Your task to perform on an android device: open a new tab in the chrome app Image 0: 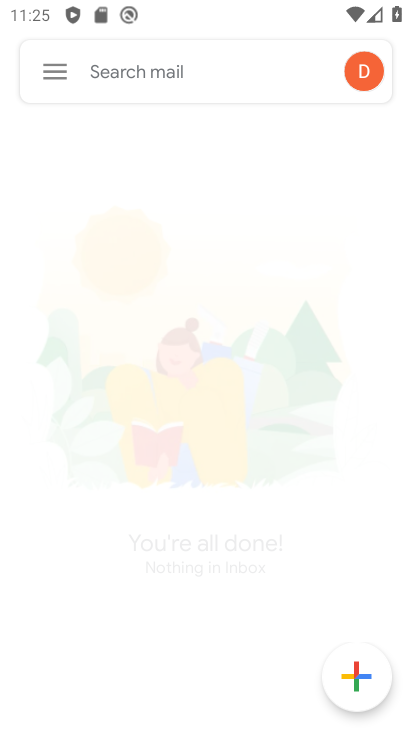
Step 0: press home button
Your task to perform on an android device: open a new tab in the chrome app Image 1: 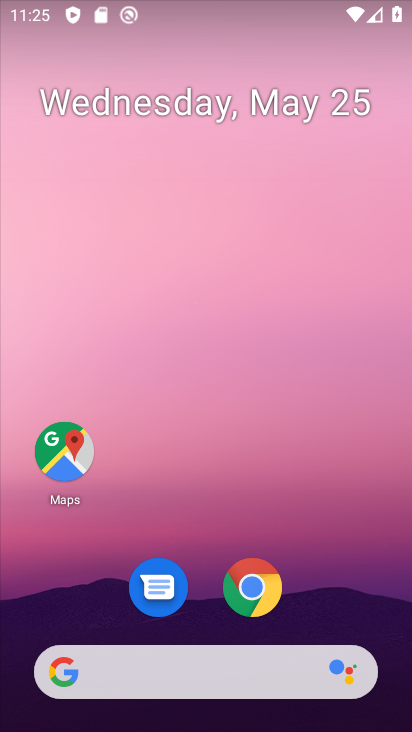
Step 1: drag from (274, 708) to (249, 214)
Your task to perform on an android device: open a new tab in the chrome app Image 2: 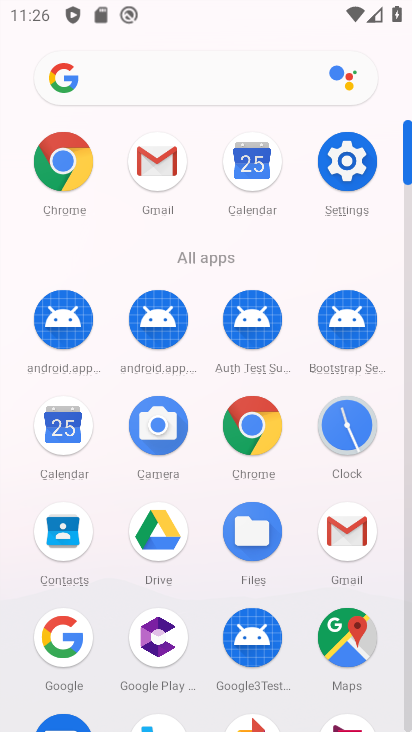
Step 2: click (246, 435)
Your task to perform on an android device: open a new tab in the chrome app Image 3: 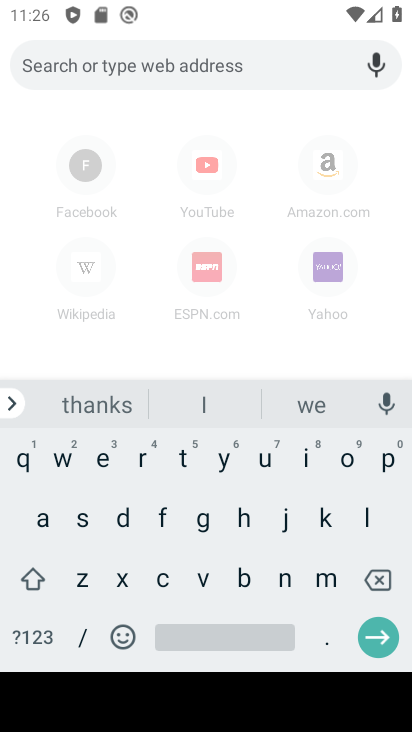
Step 3: press back button
Your task to perform on an android device: open a new tab in the chrome app Image 4: 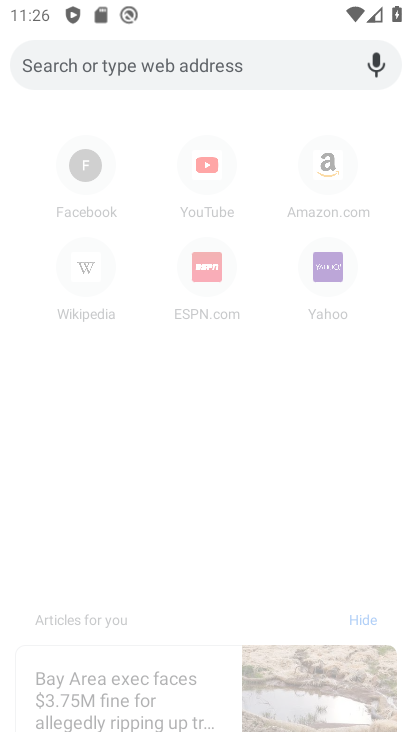
Step 4: press back button
Your task to perform on an android device: open a new tab in the chrome app Image 5: 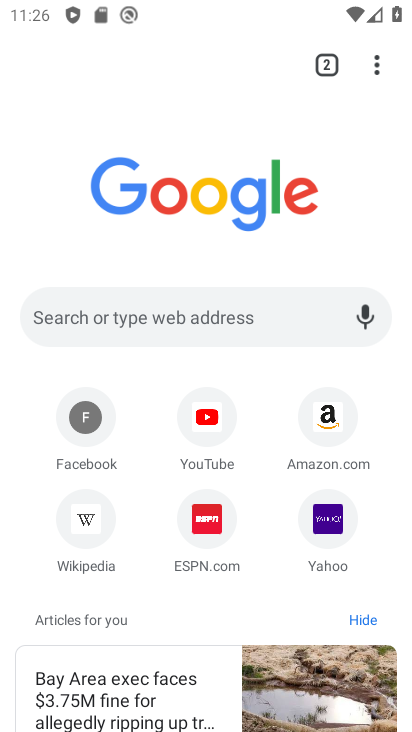
Step 5: click (324, 61)
Your task to perform on an android device: open a new tab in the chrome app Image 6: 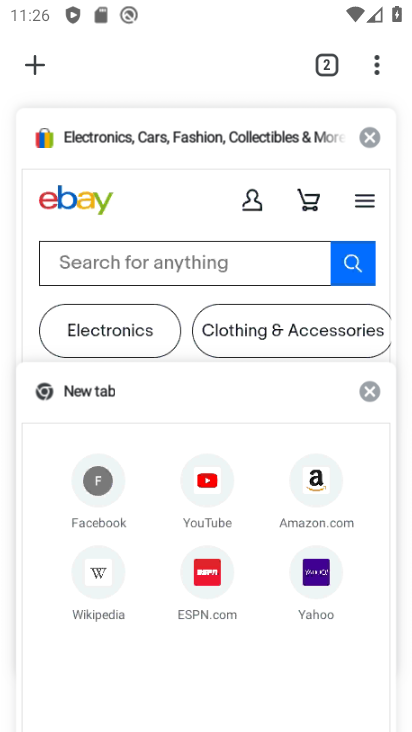
Step 6: click (20, 65)
Your task to perform on an android device: open a new tab in the chrome app Image 7: 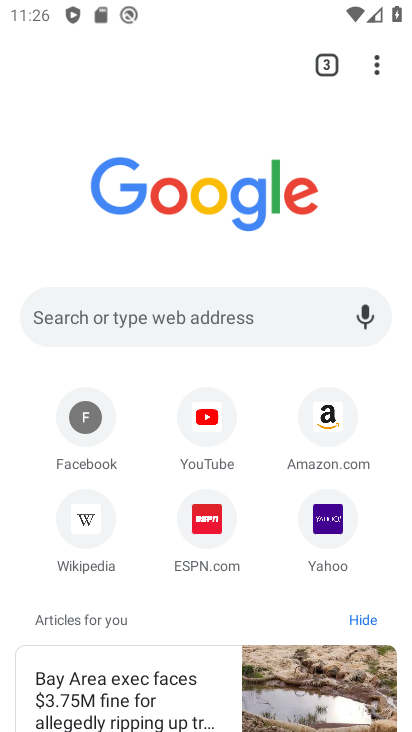
Step 7: task complete